Your task to perform on an android device: Clear the cart on bestbuy.com. Add macbook pro 13 inch to the cart on bestbuy.com Image 0: 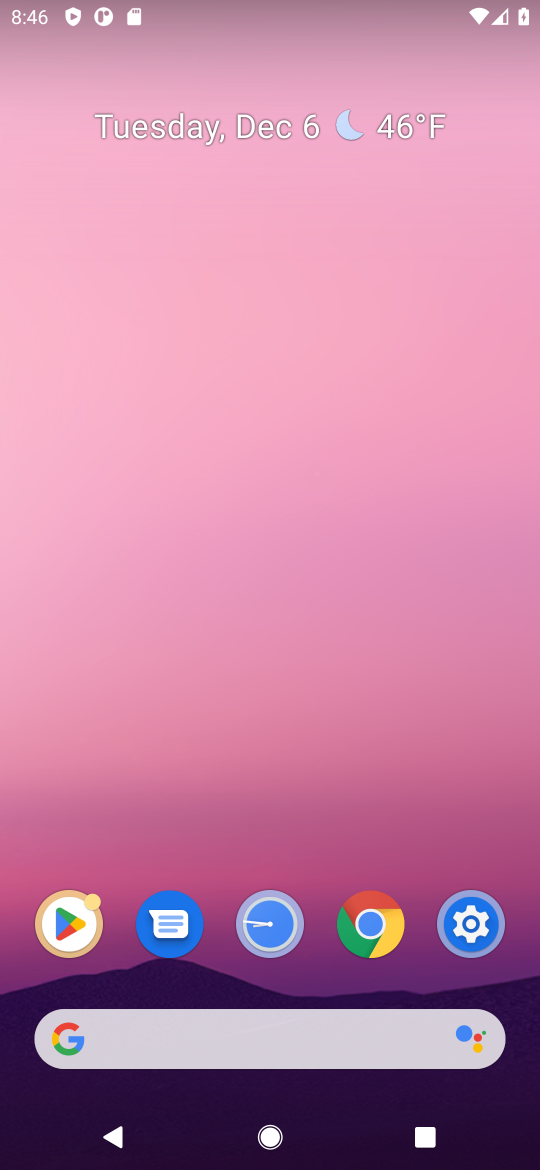
Step 0: click (339, 1041)
Your task to perform on an android device: Clear the cart on bestbuy.com. Add macbook pro 13 inch to the cart on bestbuy.com Image 1: 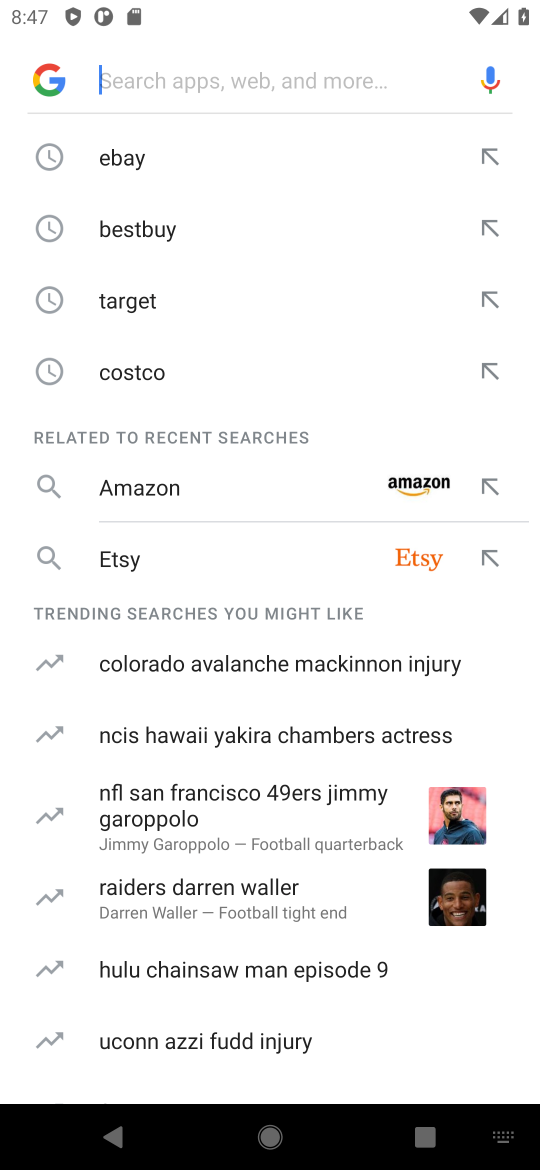
Step 1: click (219, 221)
Your task to perform on an android device: Clear the cart on bestbuy.com. Add macbook pro 13 inch to the cart on bestbuy.com Image 2: 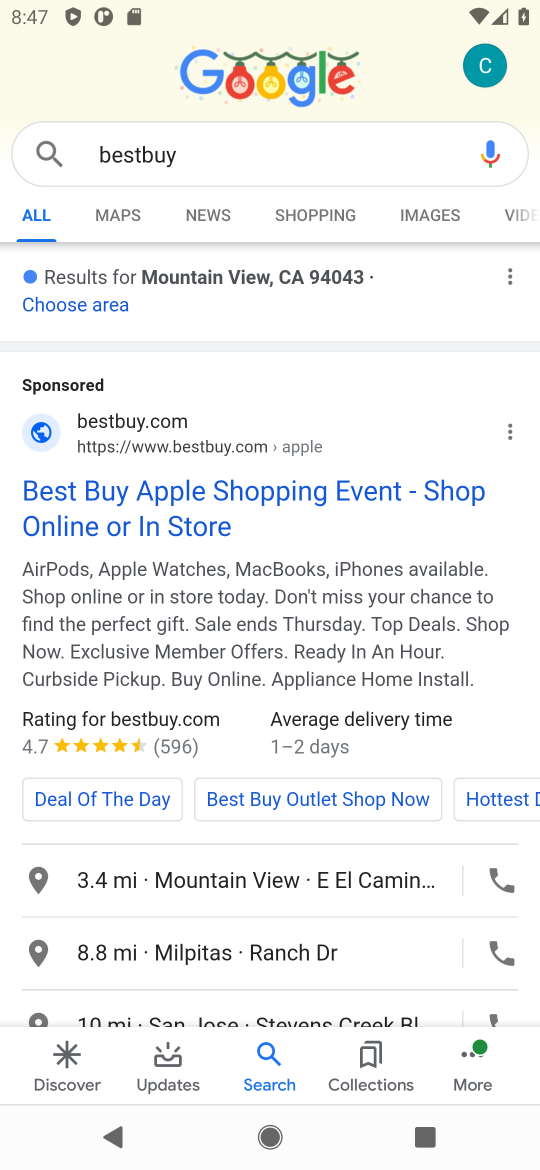
Step 2: click (179, 507)
Your task to perform on an android device: Clear the cart on bestbuy.com. Add macbook pro 13 inch to the cart on bestbuy.com Image 3: 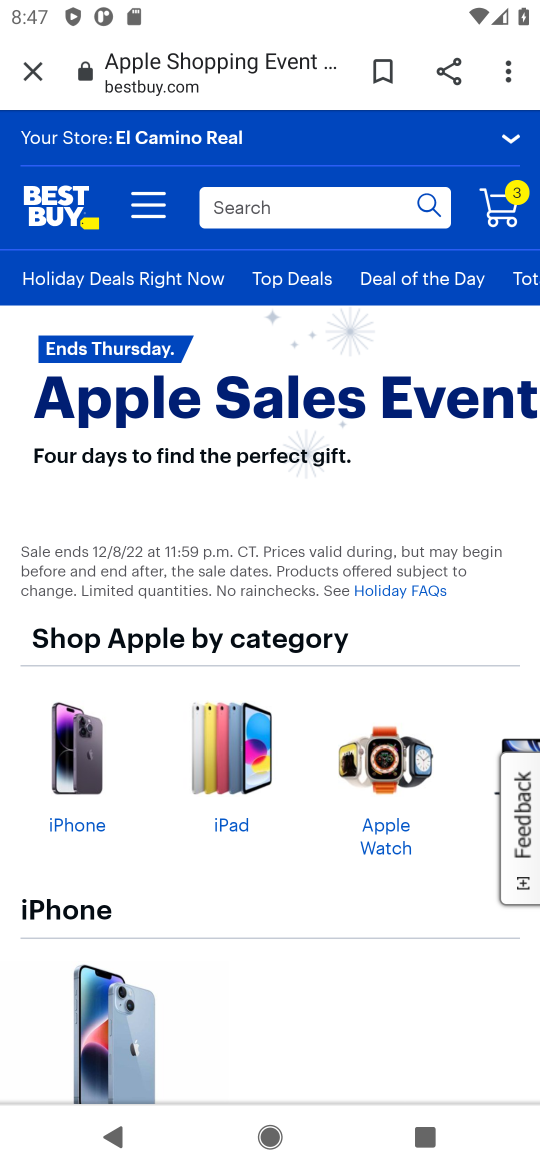
Step 3: click (360, 207)
Your task to perform on an android device: Clear the cart on bestbuy.com. Add macbook pro 13 inch to the cart on bestbuy.com Image 4: 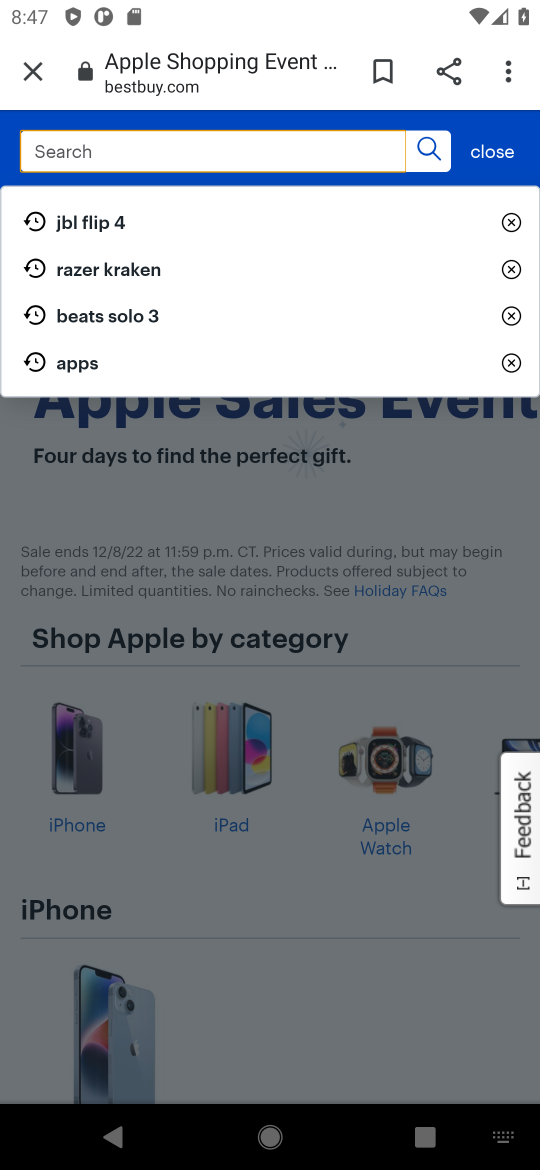
Step 4: type "macbook pro"
Your task to perform on an android device: Clear the cart on bestbuy.com. Add macbook pro 13 inch to the cart on bestbuy.com Image 5: 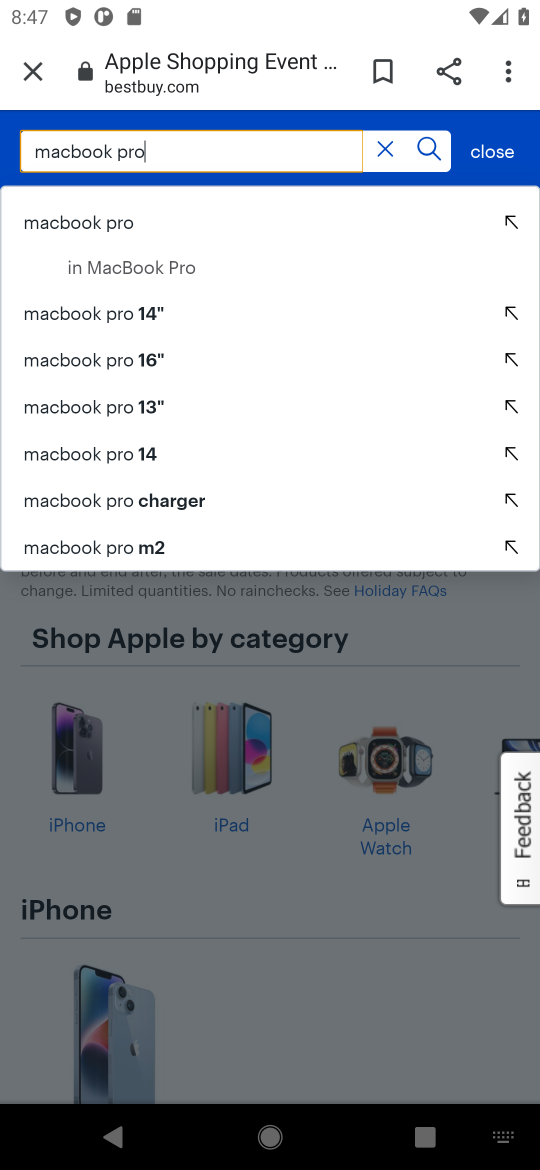
Step 5: click (428, 142)
Your task to perform on an android device: Clear the cart on bestbuy.com. Add macbook pro 13 inch to the cart on bestbuy.com Image 6: 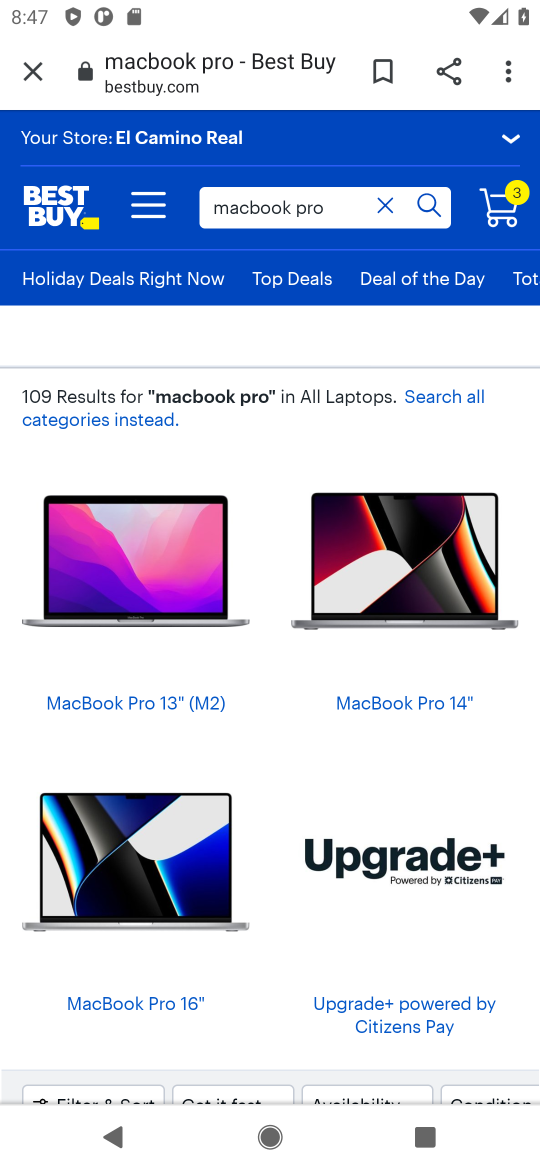
Step 6: click (85, 588)
Your task to perform on an android device: Clear the cart on bestbuy.com. Add macbook pro 13 inch to the cart on bestbuy.com Image 7: 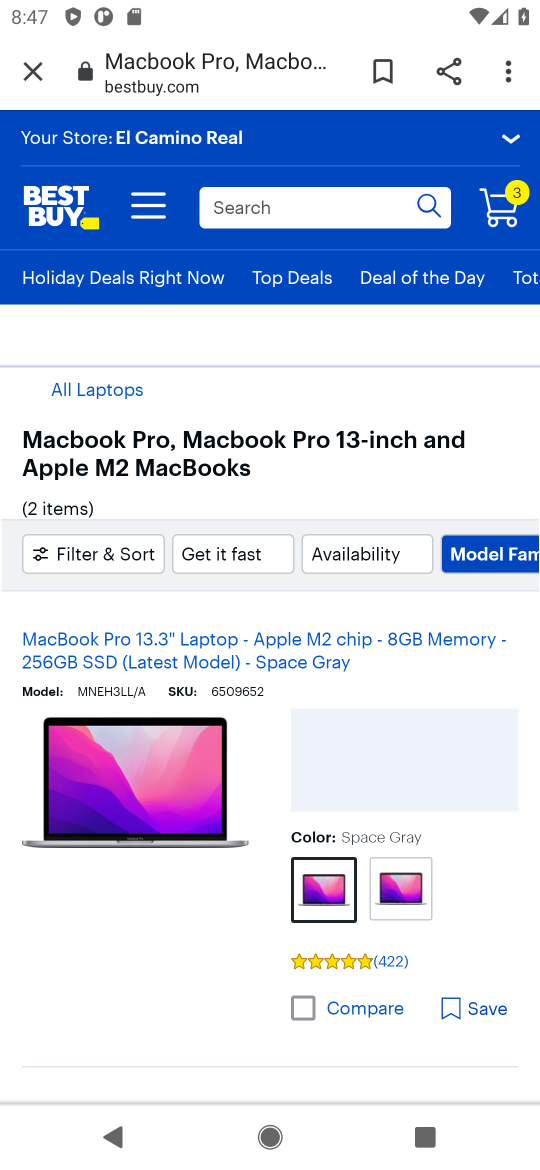
Step 7: drag from (233, 945) to (238, 550)
Your task to perform on an android device: Clear the cart on bestbuy.com. Add macbook pro 13 inch to the cart on bestbuy.com Image 8: 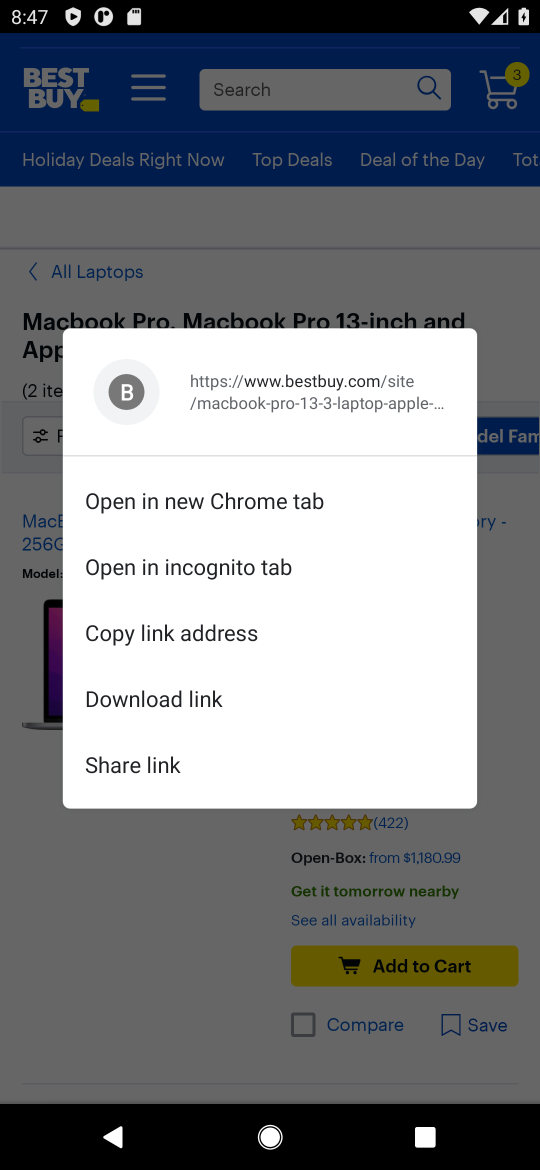
Step 8: click (232, 977)
Your task to perform on an android device: Clear the cart on bestbuy.com. Add macbook pro 13 inch to the cart on bestbuy.com Image 9: 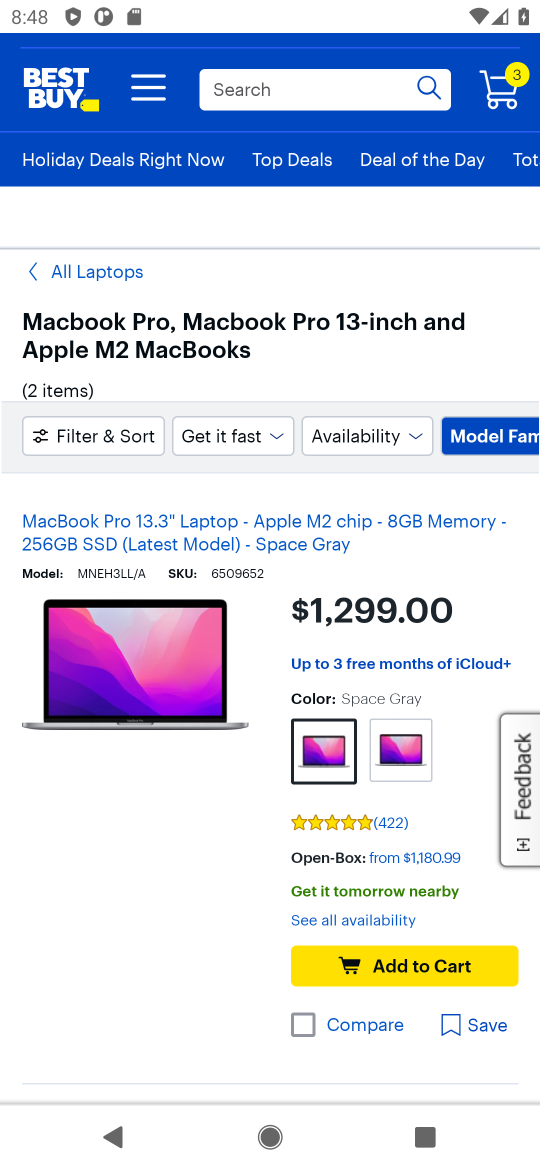
Step 9: click (353, 980)
Your task to perform on an android device: Clear the cart on bestbuy.com. Add macbook pro 13 inch to the cart on bestbuy.com Image 10: 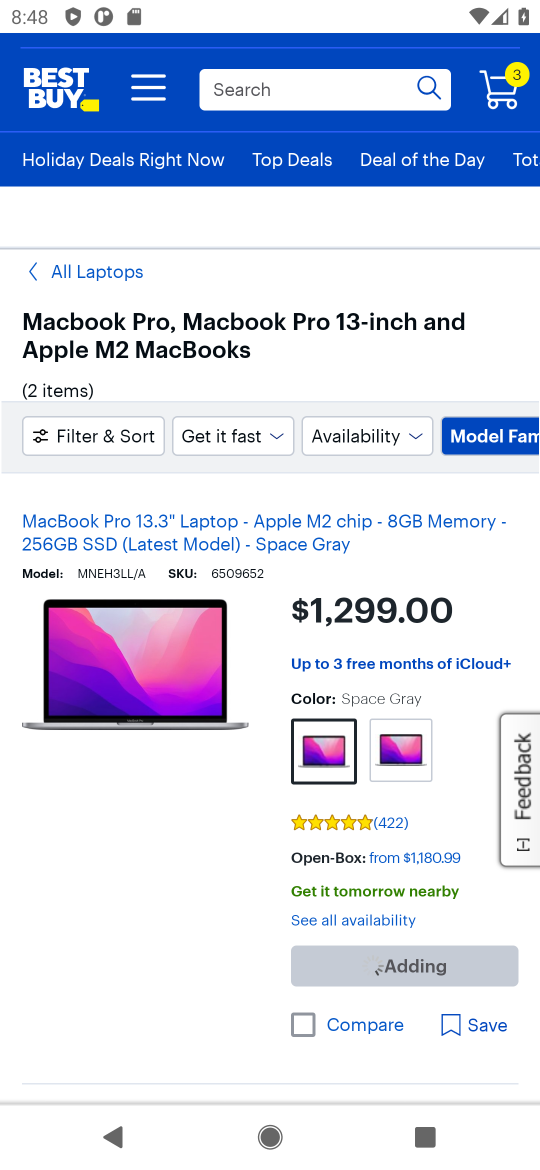
Step 10: task complete